Your task to perform on an android device: open the mobile data screen to see how much data has been used Image 0: 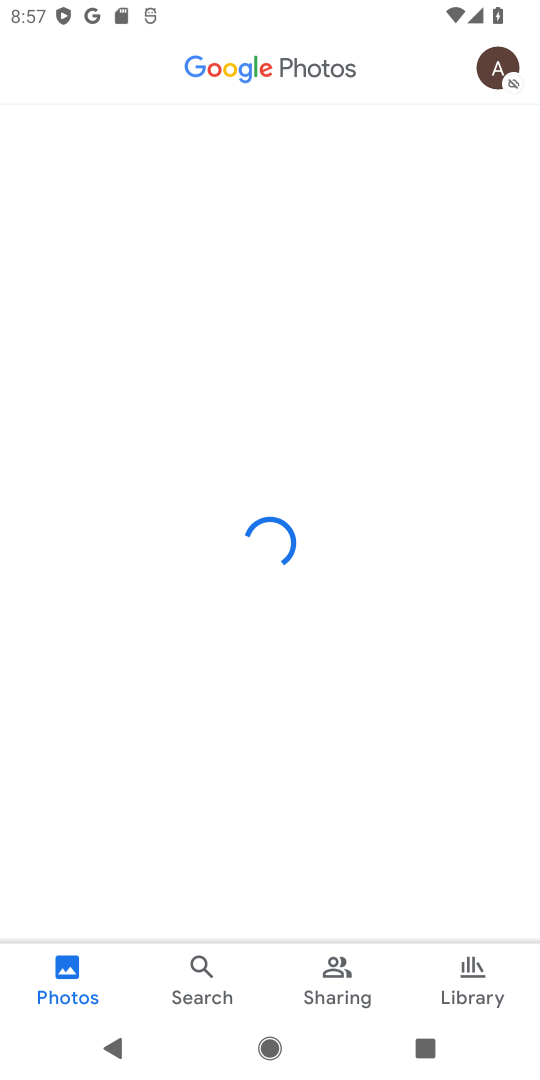
Step 0: press home button
Your task to perform on an android device: open the mobile data screen to see how much data has been used Image 1: 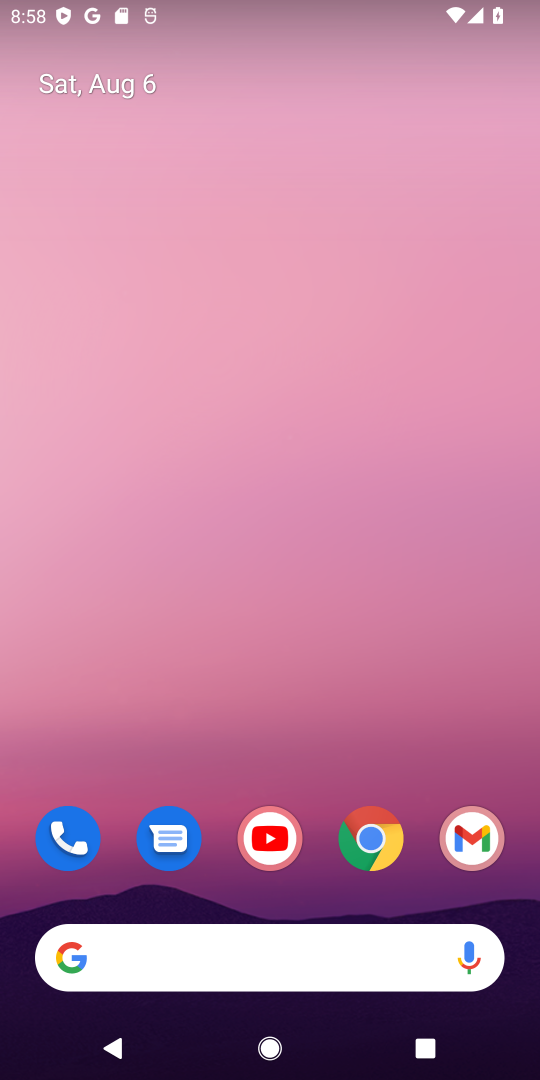
Step 1: drag from (393, 777) to (286, 292)
Your task to perform on an android device: open the mobile data screen to see how much data has been used Image 2: 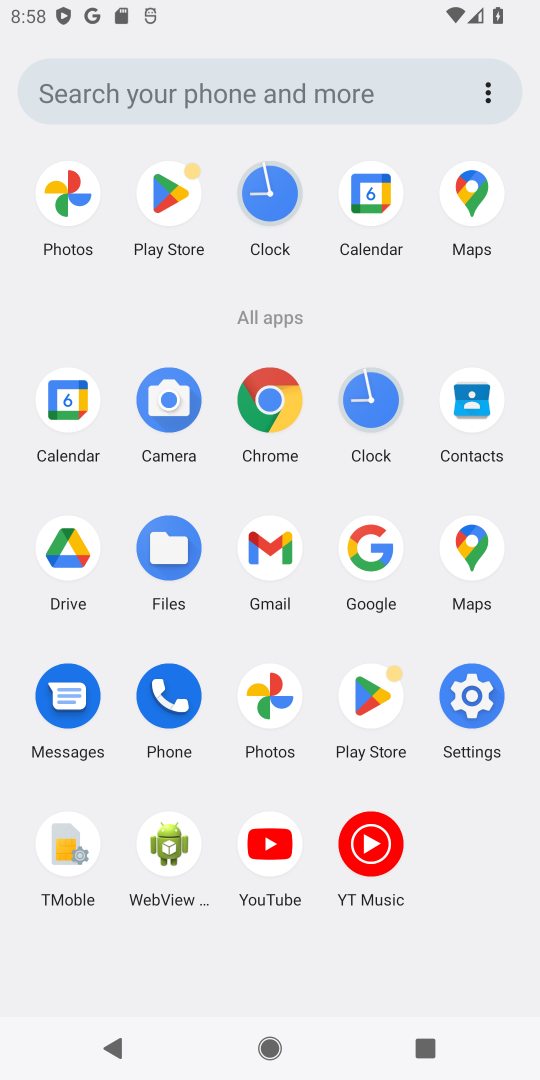
Step 2: click (479, 721)
Your task to perform on an android device: open the mobile data screen to see how much data has been used Image 3: 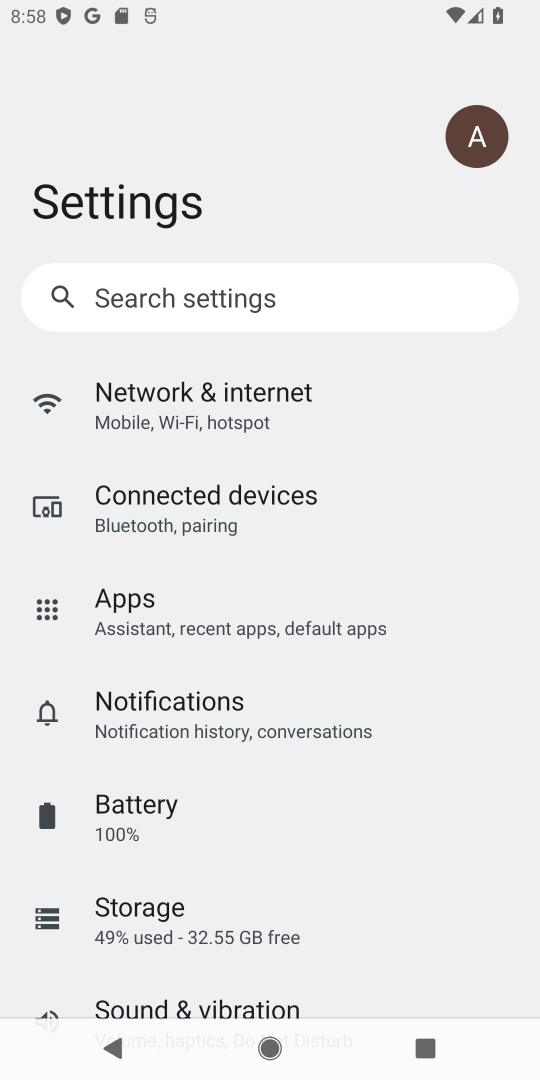
Step 3: click (190, 419)
Your task to perform on an android device: open the mobile data screen to see how much data has been used Image 4: 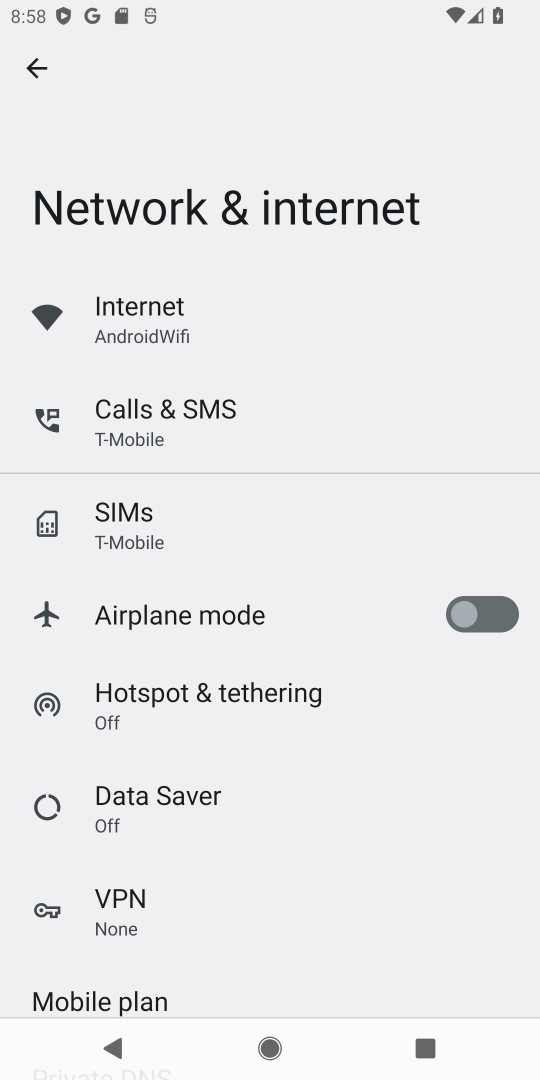
Step 4: click (145, 341)
Your task to perform on an android device: open the mobile data screen to see how much data has been used Image 5: 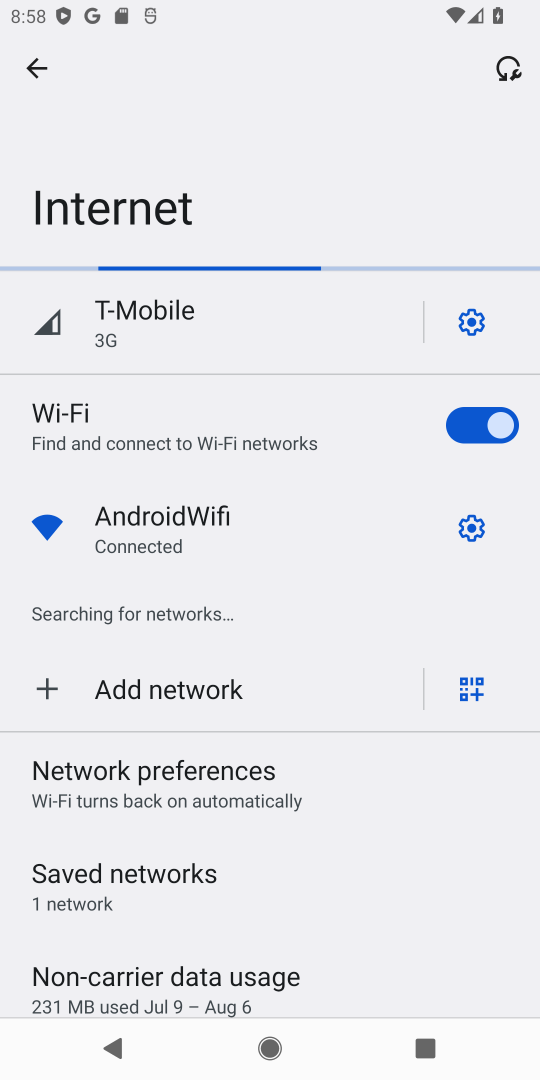
Step 5: drag from (405, 900) to (322, 607)
Your task to perform on an android device: open the mobile data screen to see how much data has been used Image 6: 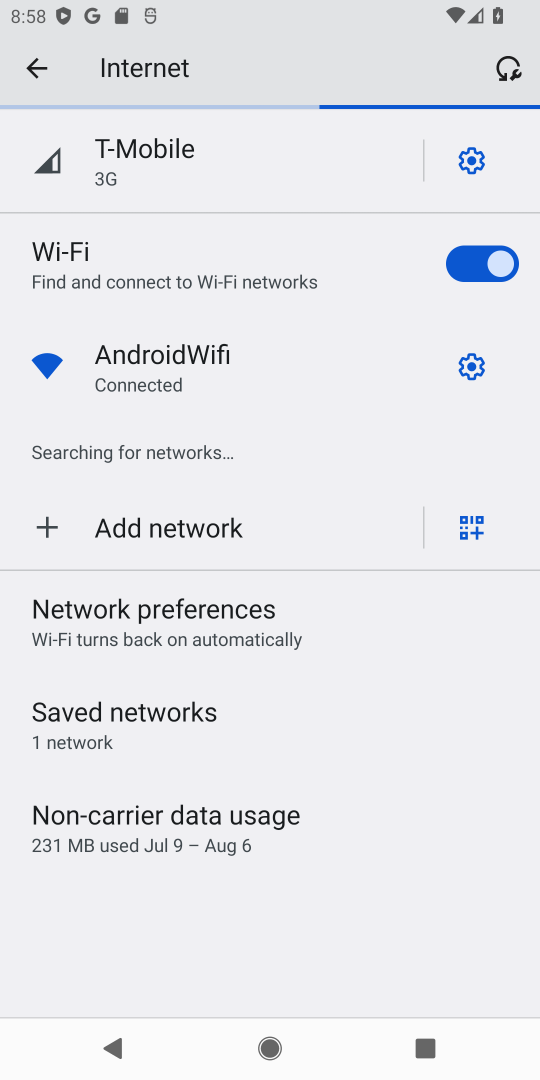
Step 6: click (260, 834)
Your task to perform on an android device: open the mobile data screen to see how much data has been used Image 7: 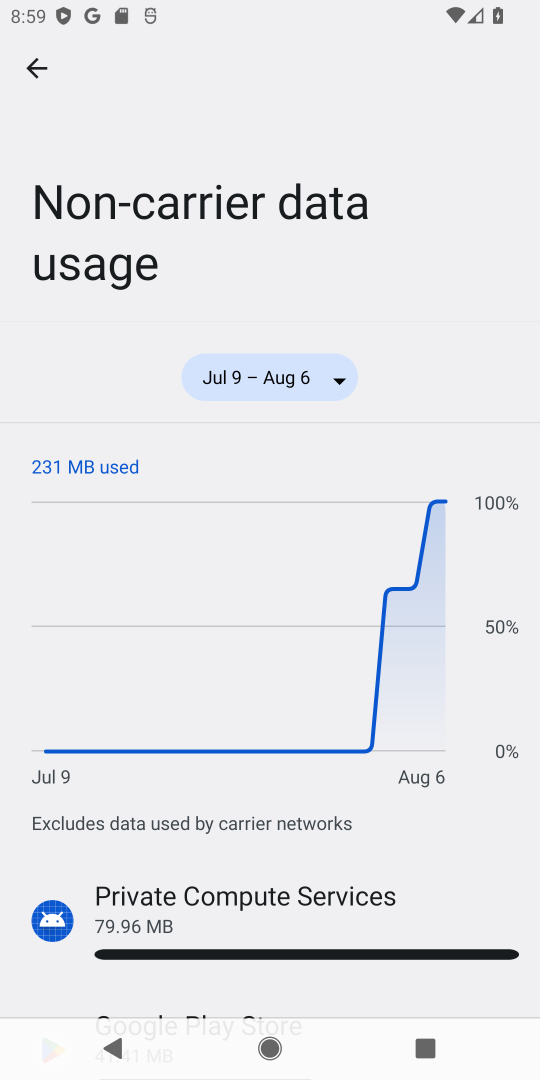
Step 7: task complete